Your task to perform on an android device: Open the Play Movies app and select the watchlist tab. Image 0: 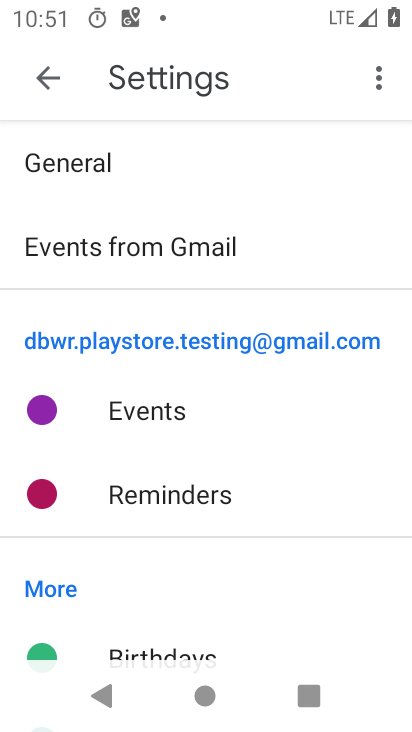
Step 0: press home button
Your task to perform on an android device: Open the Play Movies app and select the watchlist tab. Image 1: 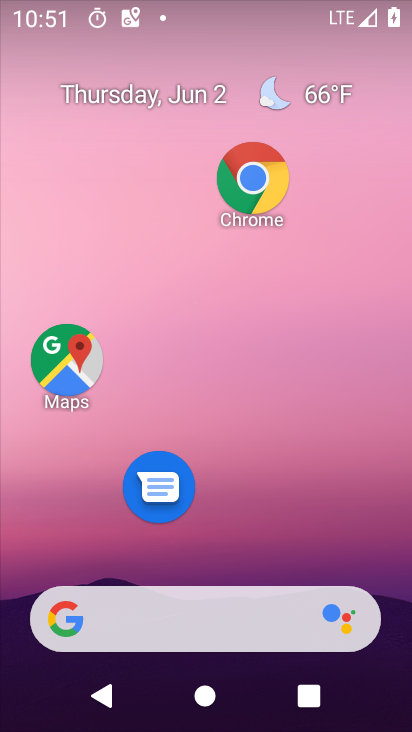
Step 1: drag from (216, 725) to (209, 29)
Your task to perform on an android device: Open the Play Movies app and select the watchlist tab. Image 2: 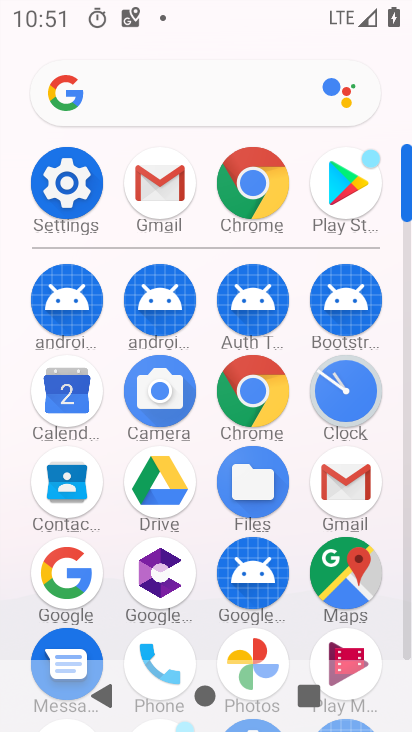
Step 2: drag from (292, 635) to (297, 261)
Your task to perform on an android device: Open the Play Movies app and select the watchlist tab. Image 3: 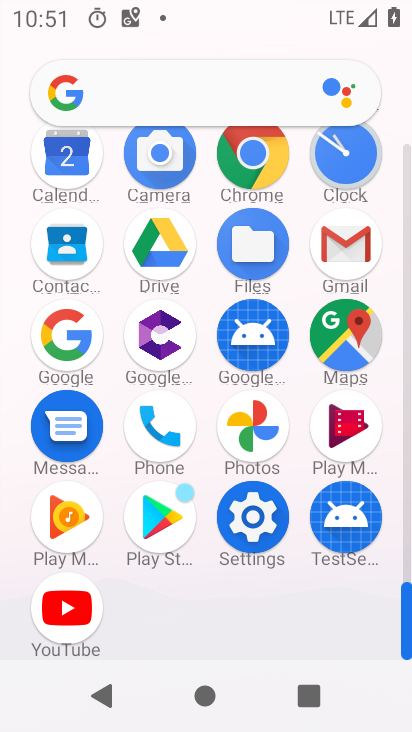
Step 3: click (347, 427)
Your task to perform on an android device: Open the Play Movies app and select the watchlist tab. Image 4: 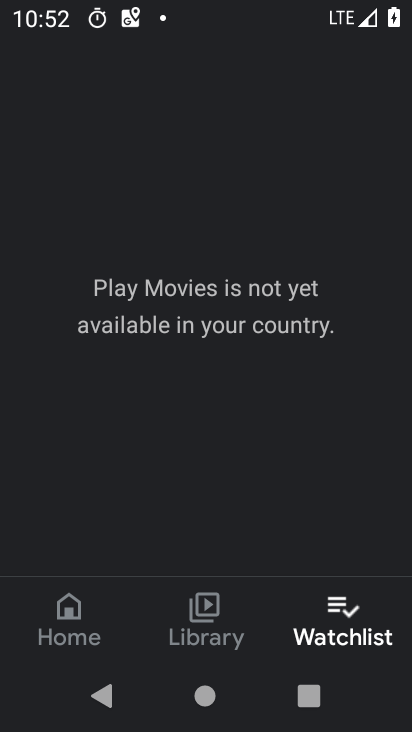
Step 4: task complete